Your task to perform on an android device: empty trash in the gmail app Image 0: 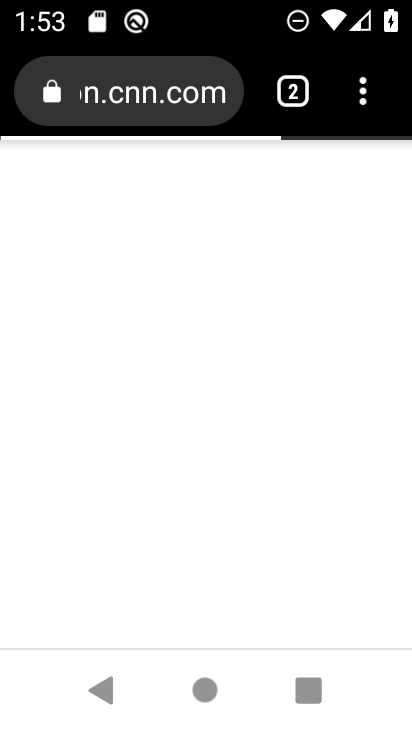
Step 0: press home button
Your task to perform on an android device: empty trash in the gmail app Image 1: 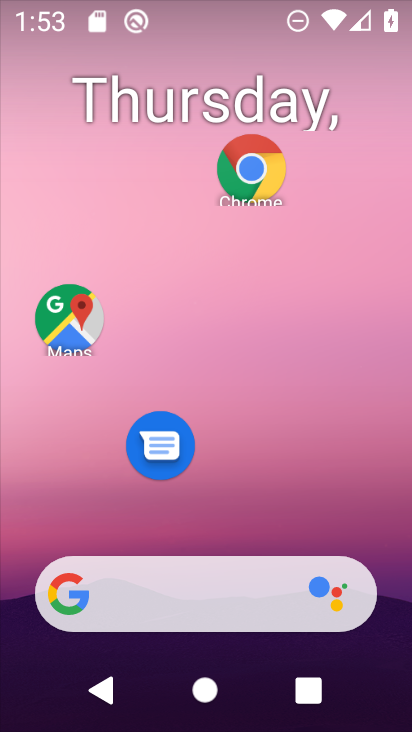
Step 1: drag from (224, 641) to (401, 84)
Your task to perform on an android device: empty trash in the gmail app Image 2: 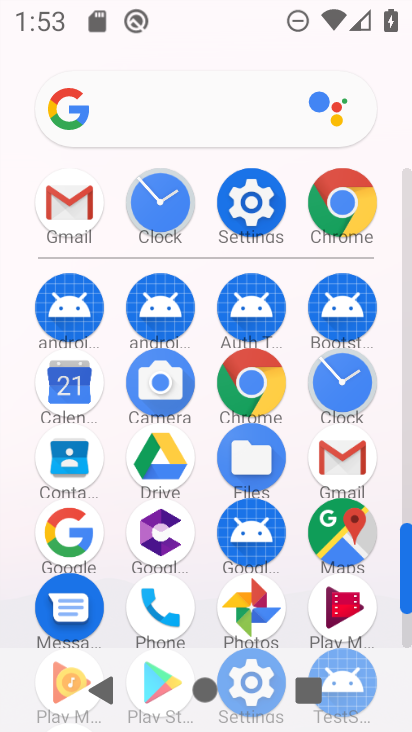
Step 2: click (336, 447)
Your task to perform on an android device: empty trash in the gmail app Image 3: 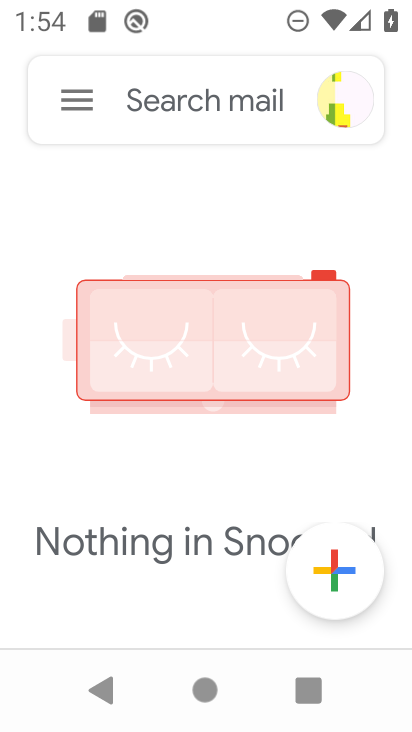
Step 3: click (81, 93)
Your task to perform on an android device: empty trash in the gmail app Image 4: 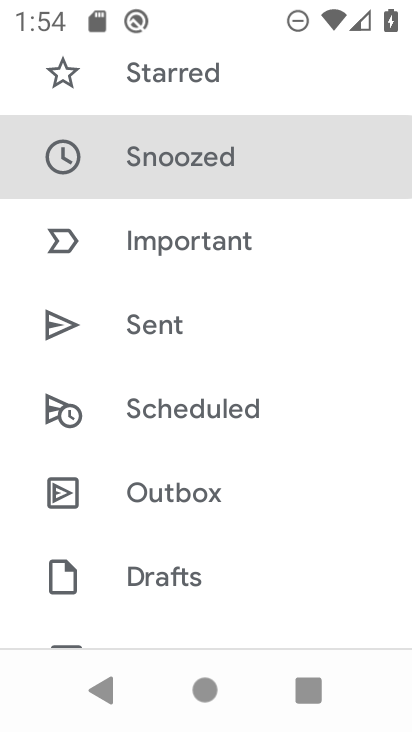
Step 4: drag from (151, 519) to (339, 250)
Your task to perform on an android device: empty trash in the gmail app Image 5: 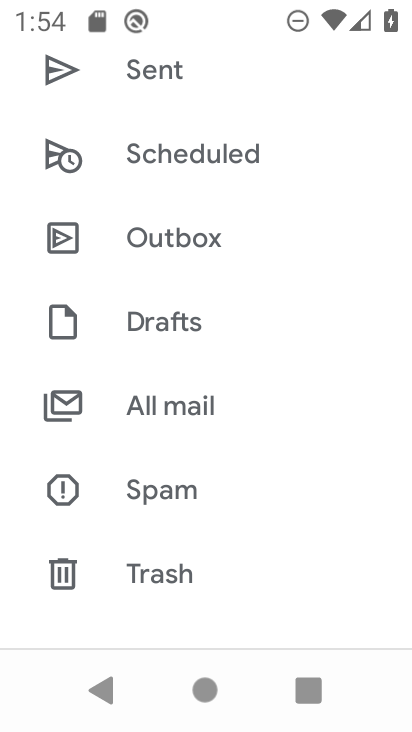
Step 5: click (155, 554)
Your task to perform on an android device: empty trash in the gmail app Image 6: 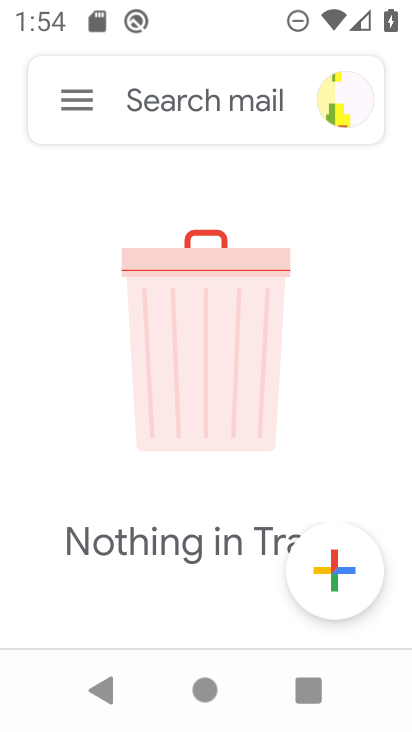
Step 6: task complete